Your task to perform on an android device: check data usage Image 0: 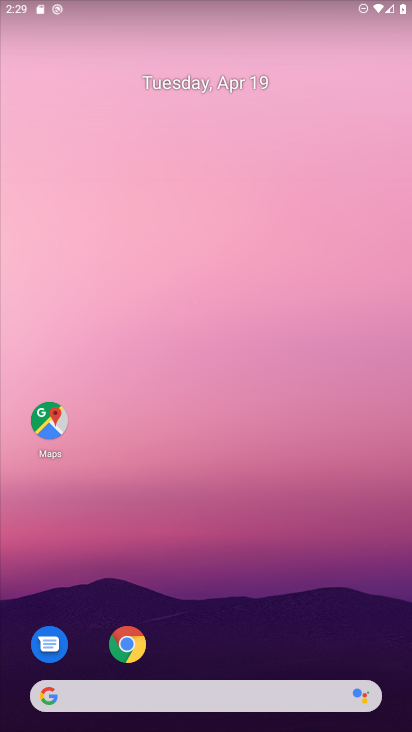
Step 0: drag from (219, 627) to (104, 162)
Your task to perform on an android device: check data usage Image 1: 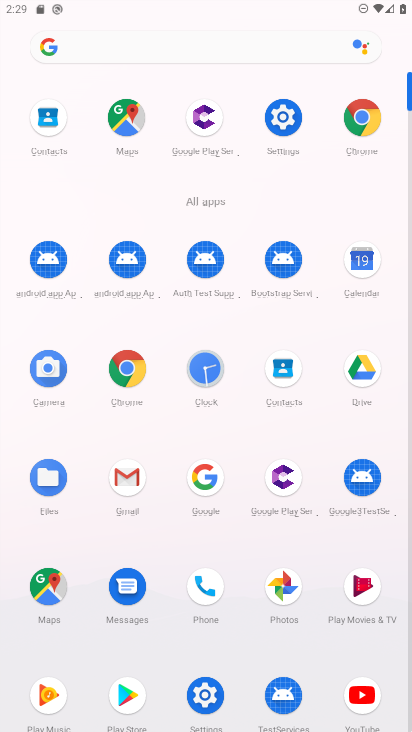
Step 1: click (284, 122)
Your task to perform on an android device: check data usage Image 2: 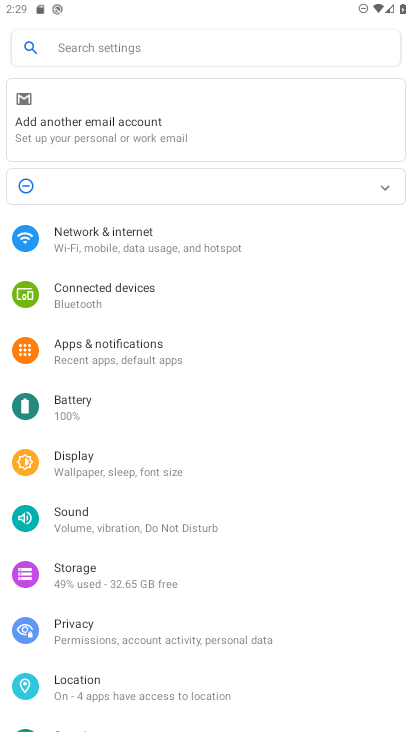
Step 2: click (118, 245)
Your task to perform on an android device: check data usage Image 3: 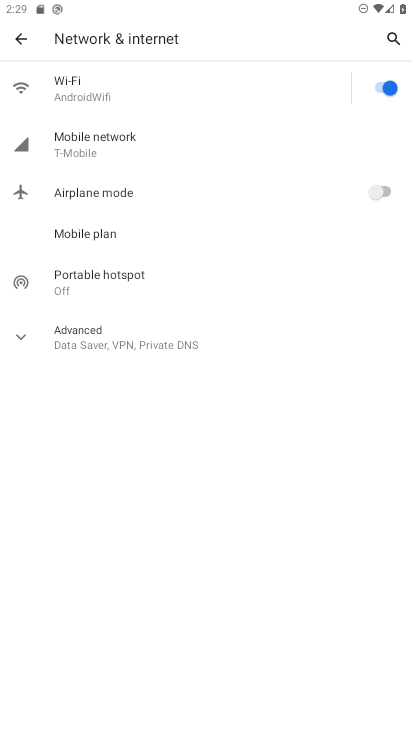
Step 3: click (97, 156)
Your task to perform on an android device: check data usage Image 4: 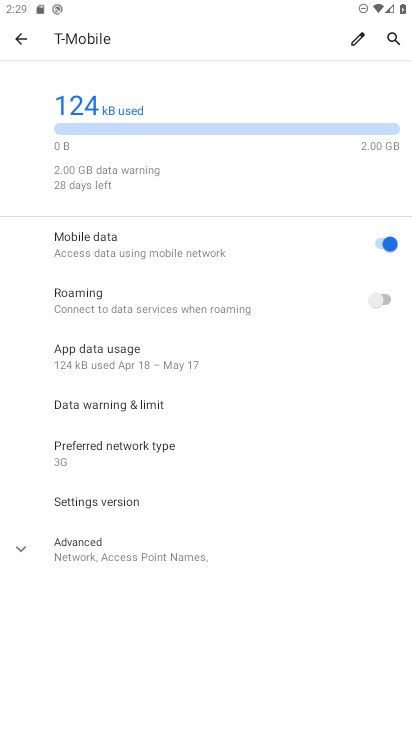
Step 4: task complete